Your task to perform on an android device: turn off translation in the chrome app Image 0: 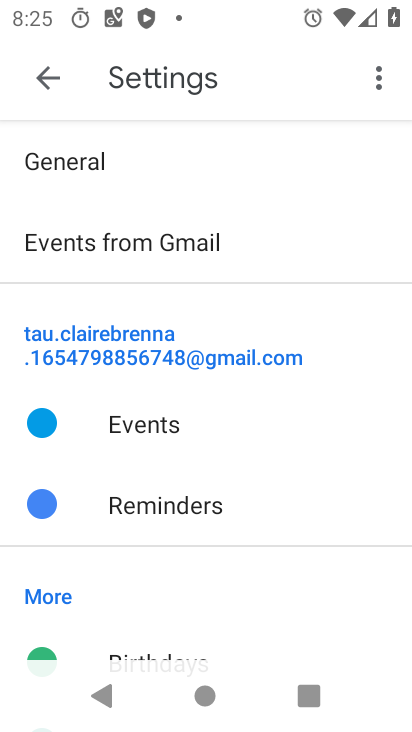
Step 0: press home button
Your task to perform on an android device: turn off translation in the chrome app Image 1: 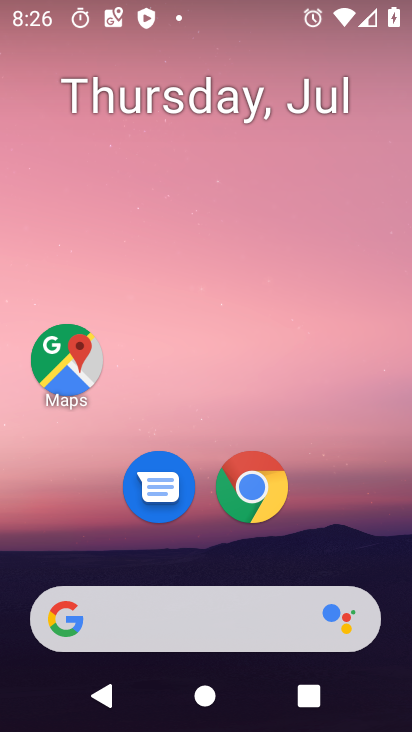
Step 1: drag from (173, 634) to (208, 226)
Your task to perform on an android device: turn off translation in the chrome app Image 2: 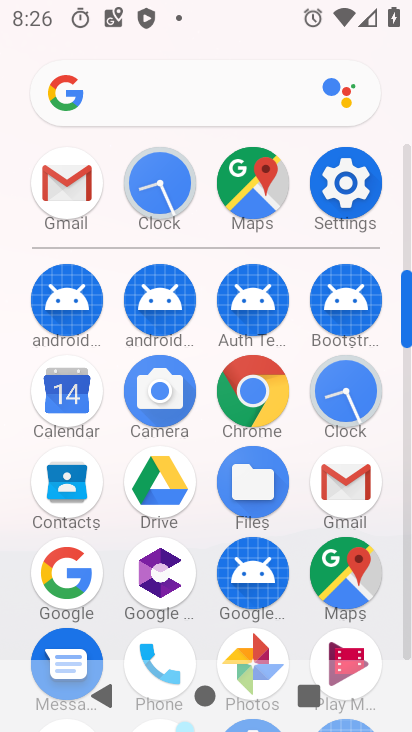
Step 2: click (262, 392)
Your task to perform on an android device: turn off translation in the chrome app Image 3: 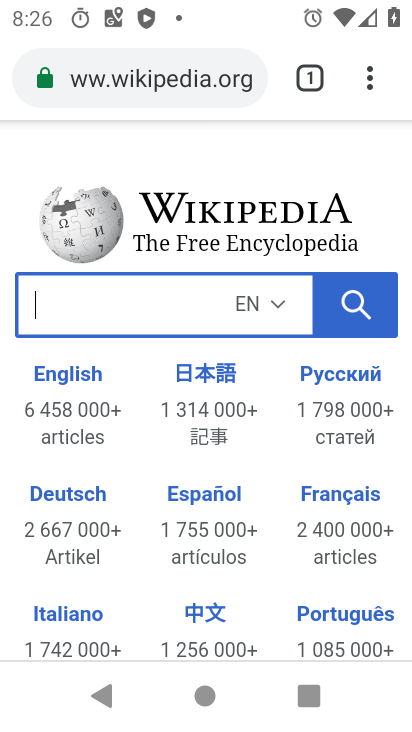
Step 3: click (382, 97)
Your task to perform on an android device: turn off translation in the chrome app Image 4: 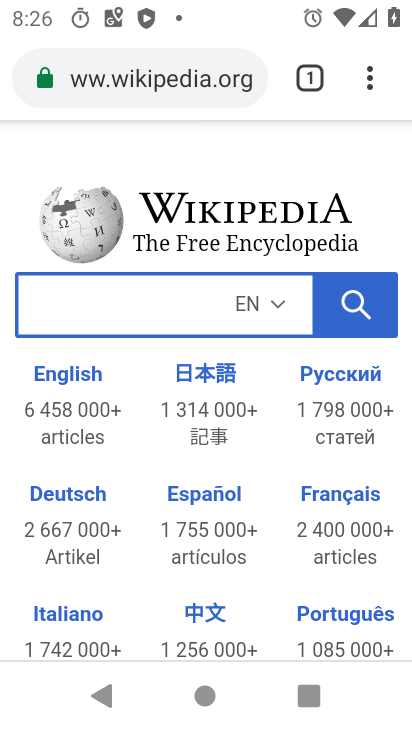
Step 4: click (372, 94)
Your task to perform on an android device: turn off translation in the chrome app Image 5: 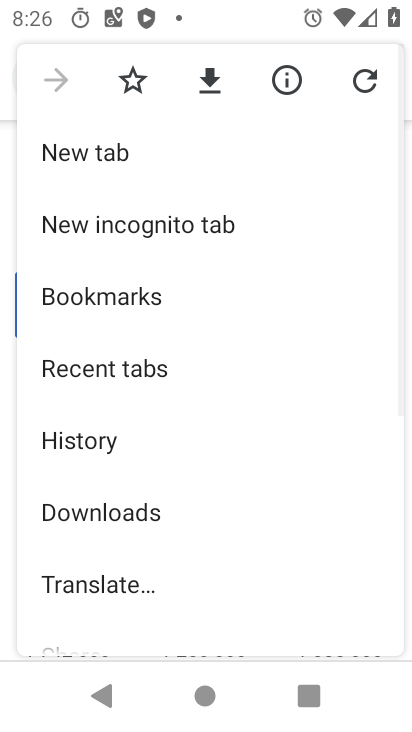
Step 5: drag from (169, 510) to (187, 159)
Your task to perform on an android device: turn off translation in the chrome app Image 6: 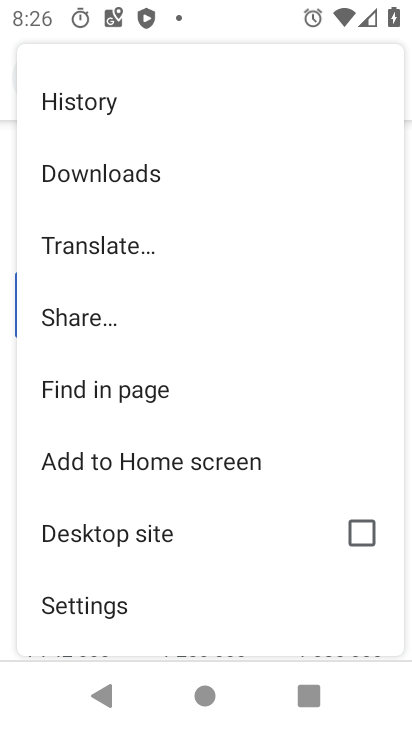
Step 6: click (115, 242)
Your task to perform on an android device: turn off translation in the chrome app Image 7: 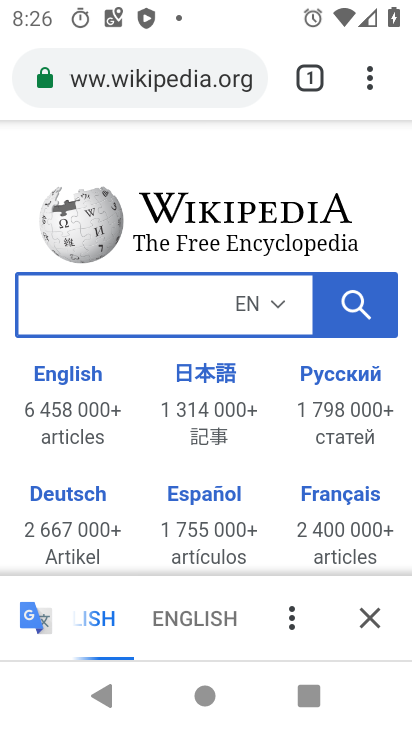
Step 7: click (293, 615)
Your task to perform on an android device: turn off translation in the chrome app Image 8: 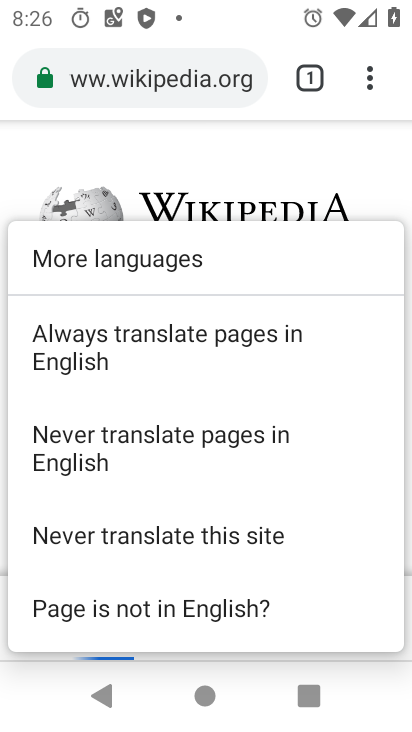
Step 8: click (248, 536)
Your task to perform on an android device: turn off translation in the chrome app Image 9: 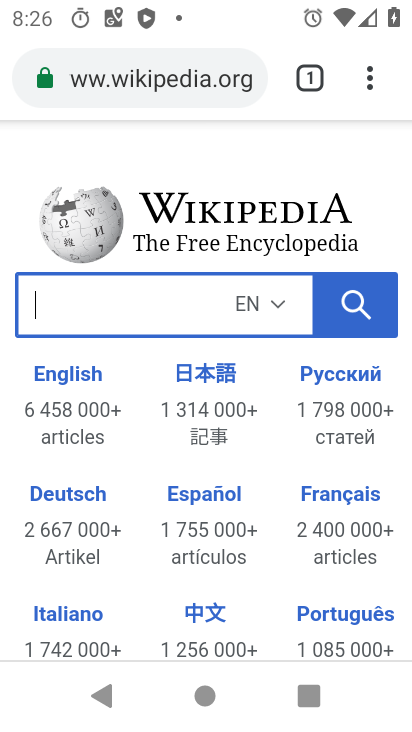
Step 9: task complete